Your task to perform on an android device: View the shopping cart on walmart. Add "jbl flip 4" to the cart on walmart Image 0: 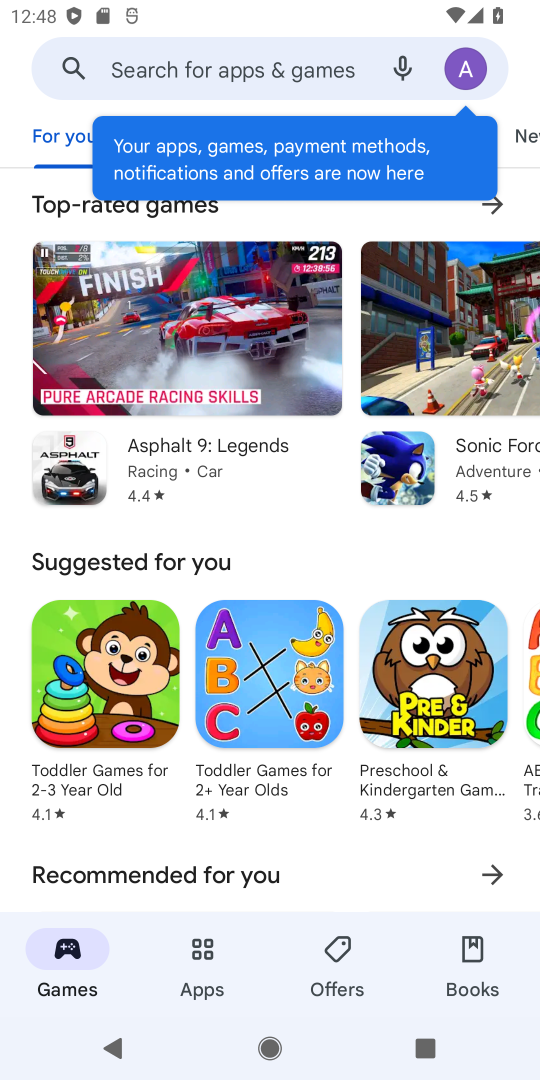
Step 0: press home button
Your task to perform on an android device: View the shopping cart on walmart. Add "jbl flip 4" to the cart on walmart Image 1: 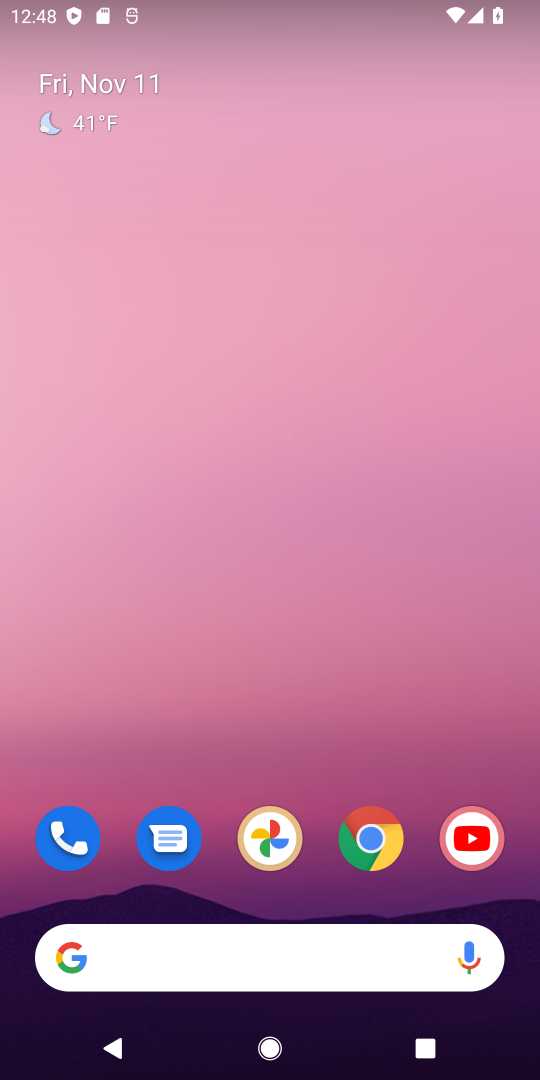
Step 1: click (375, 838)
Your task to perform on an android device: View the shopping cart on walmart. Add "jbl flip 4" to the cart on walmart Image 2: 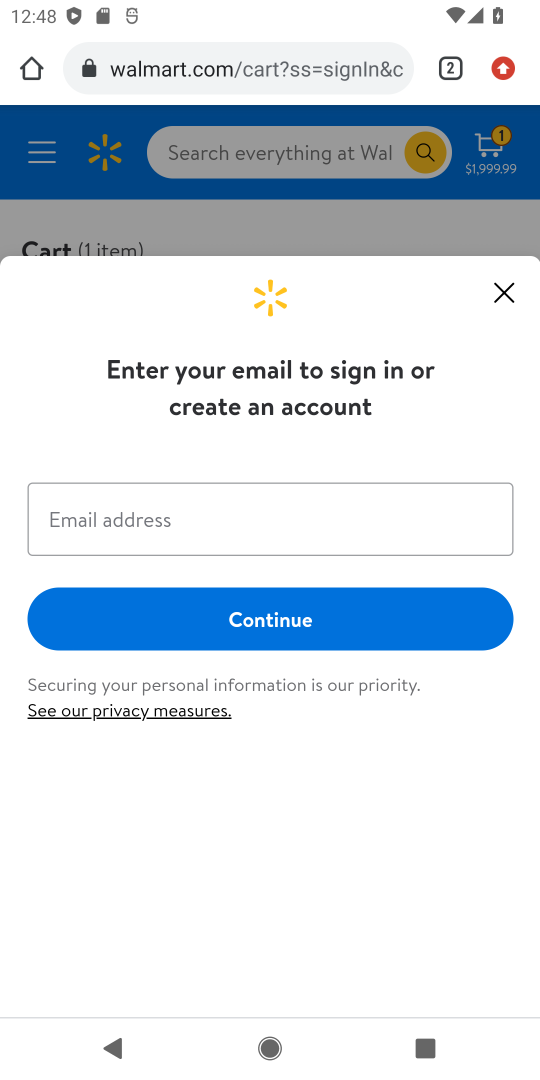
Step 2: click (512, 289)
Your task to perform on an android device: View the shopping cart on walmart. Add "jbl flip 4" to the cart on walmart Image 3: 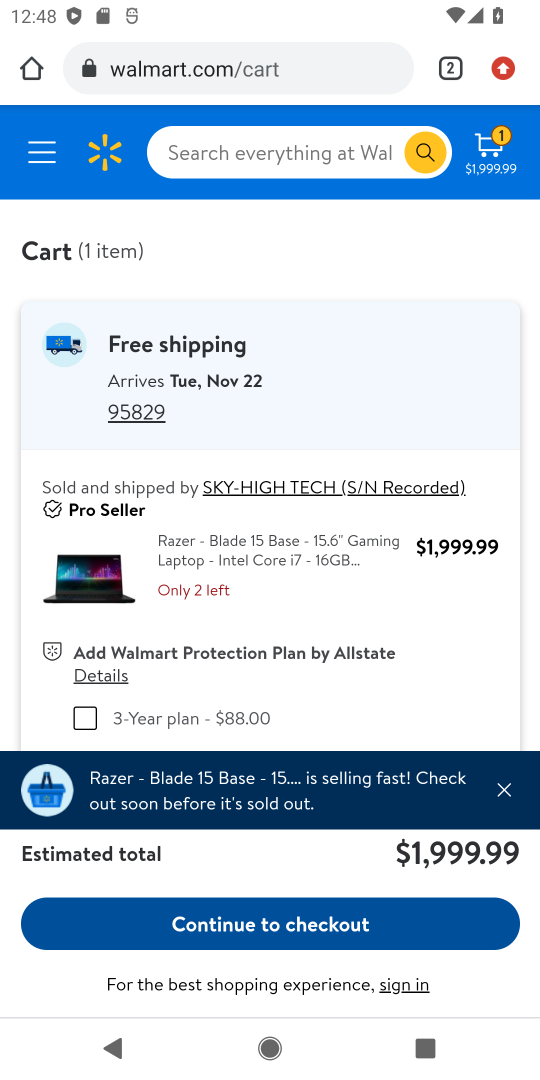
Step 3: click (342, 155)
Your task to perform on an android device: View the shopping cart on walmart. Add "jbl flip 4" to the cart on walmart Image 4: 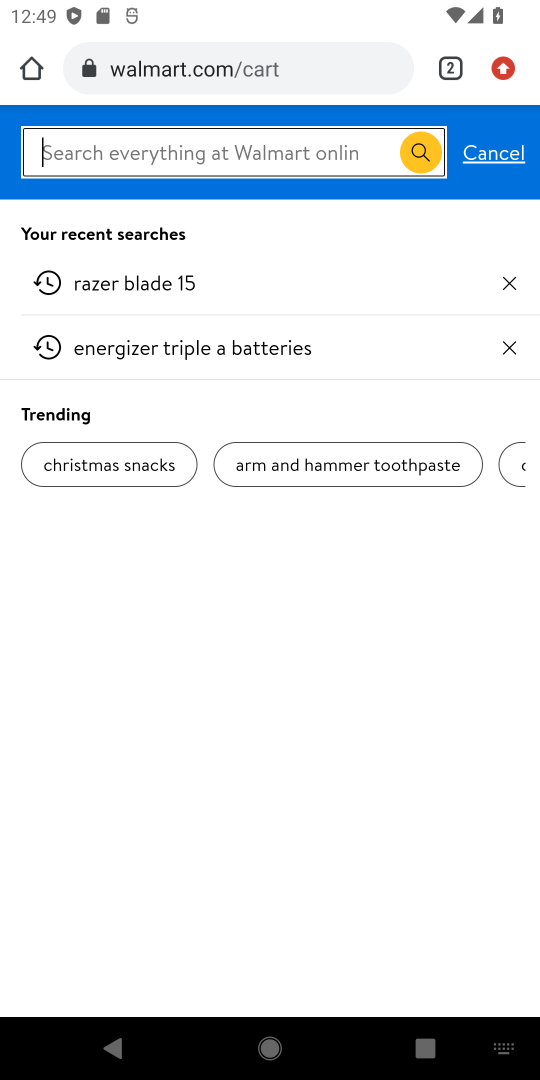
Step 4: type "jbl flip 4"
Your task to perform on an android device: View the shopping cart on walmart. Add "jbl flip 4" to the cart on walmart Image 5: 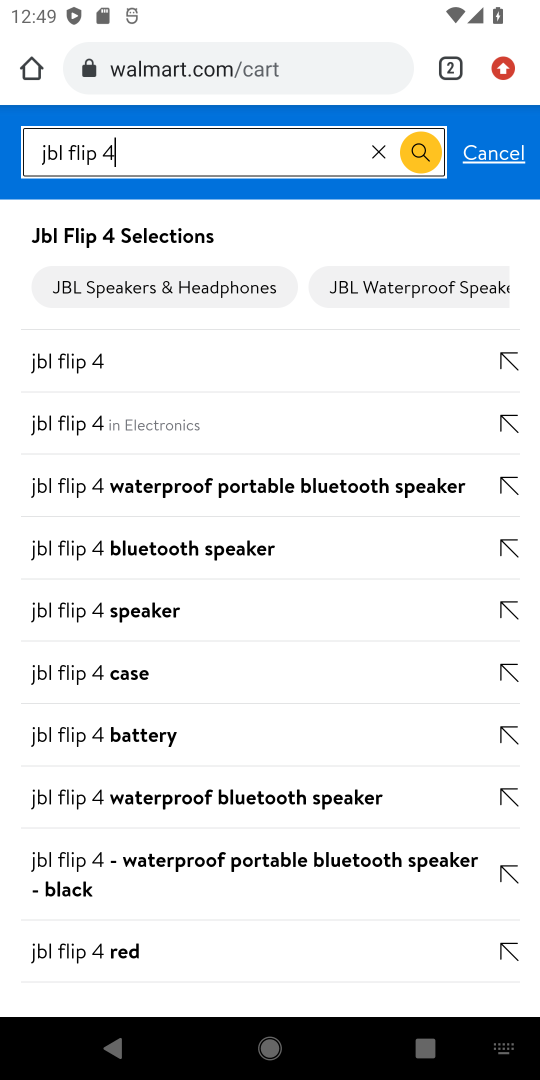
Step 5: click (77, 434)
Your task to perform on an android device: View the shopping cart on walmart. Add "jbl flip 4" to the cart on walmart Image 6: 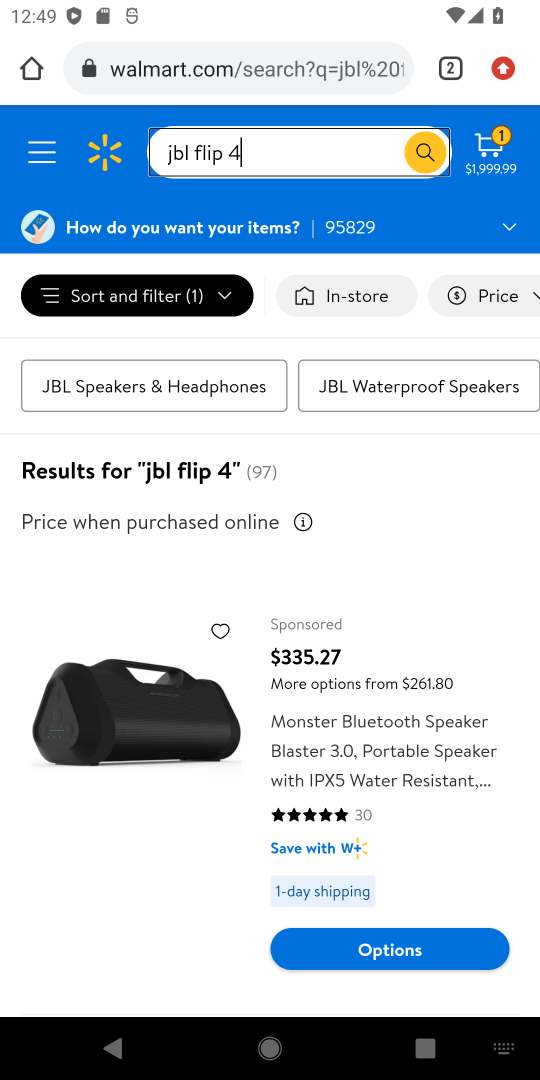
Step 6: drag from (166, 896) to (468, 89)
Your task to perform on an android device: View the shopping cart on walmart. Add "jbl flip 4" to the cart on walmart Image 7: 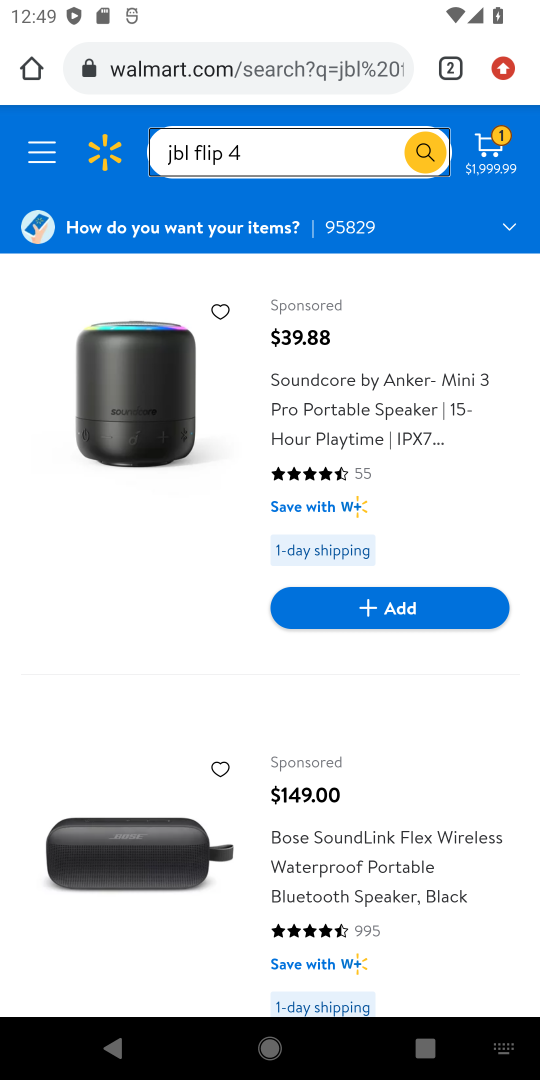
Step 7: drag from (198, 928) to (298, 517)
Your task to perform on an android device: View the shopping cart on walmart. Add "jbl flip 4" to the cart on walmart Image 8: 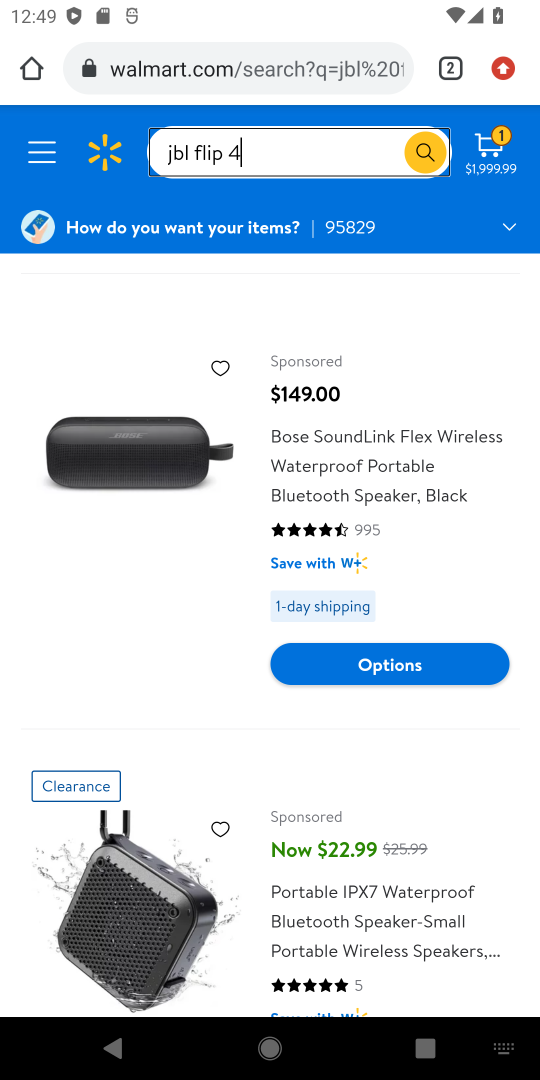
Step 8: drag from (182, 754) to (234, 290)
Your task to perform on an android device: View the shopping cart on walmart. Add "jbl flip 4" to the cart on walmart Image 9: 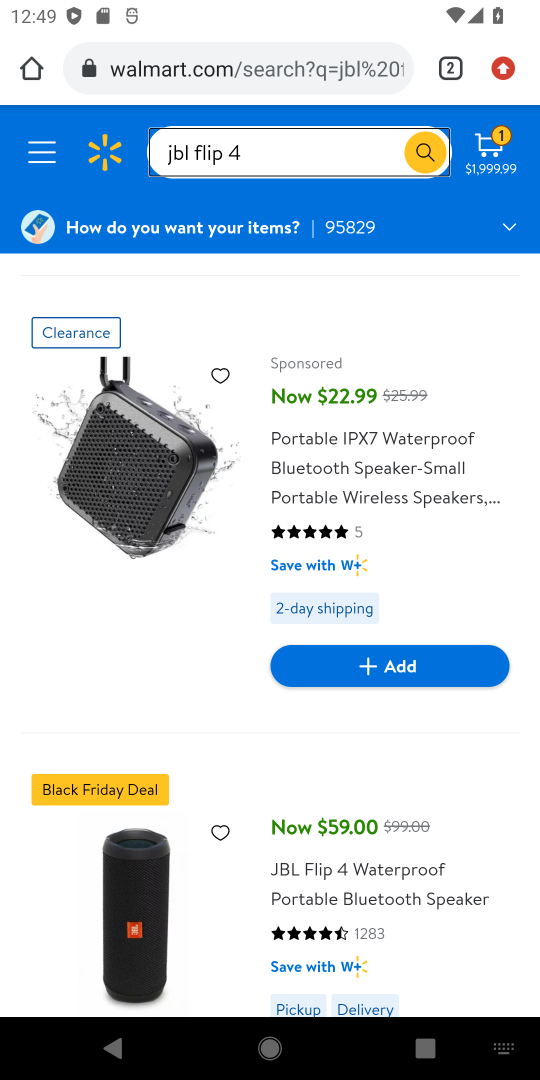
Step 9: drag from (202, 881) to (260, 430)
Your task to perform on an android device: View the shopping cart on walmart. Add "jbl flip 4" to the cart on walmart Image 10: 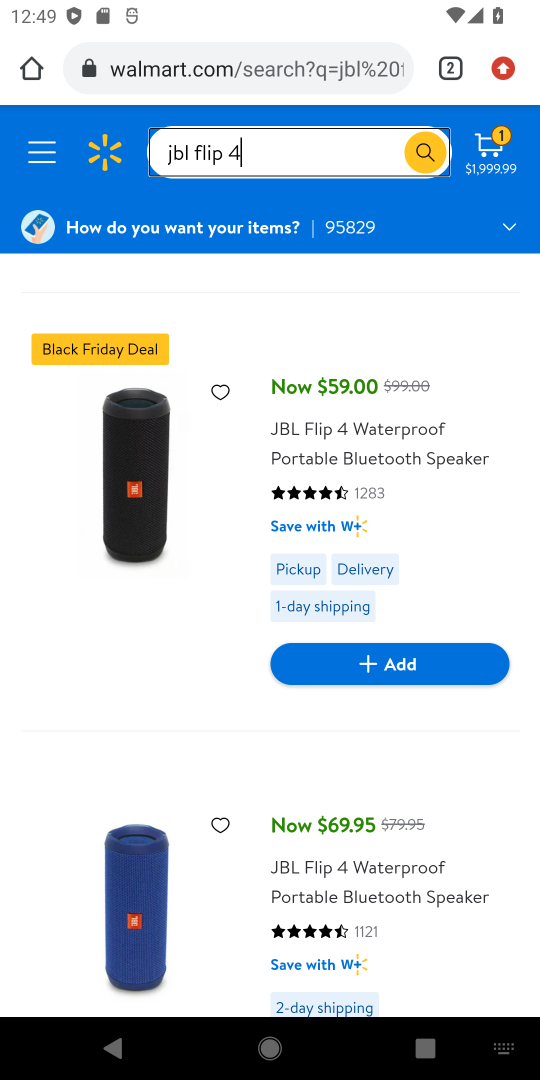
Step 10: click (399, 652)
Your task to perform on an android device: View the shopping cart on walmart. Add "jbl flip 4" to the cart on walmart Image 11: 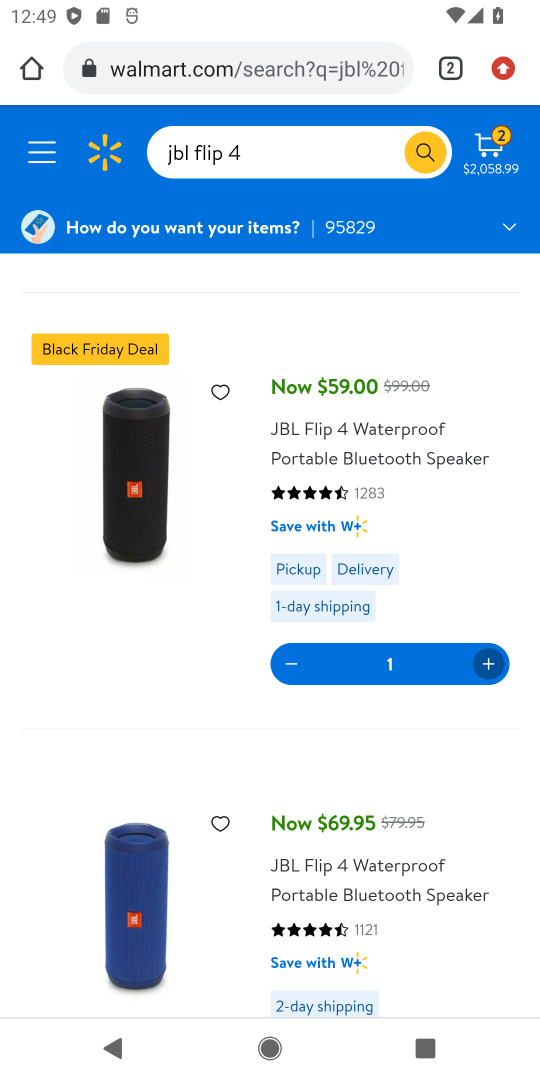
Step 11: task complete